Your task to perform on an android device: toggle javascript in the chrome app Image 0: 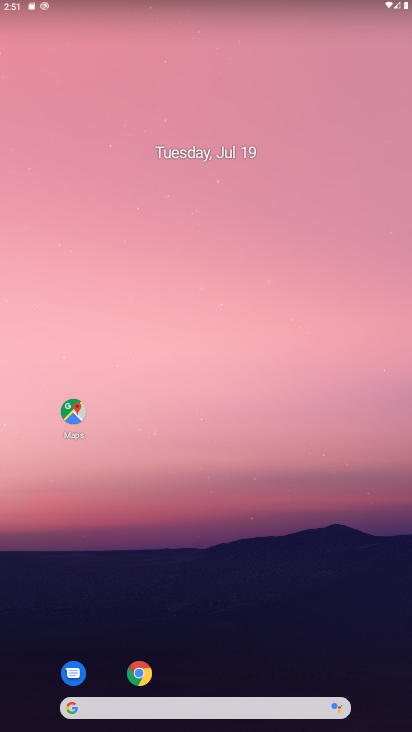
Step 0: click (143, 675)
Your task to perform on an android device: toggle javascript in the chrome app Image 1: 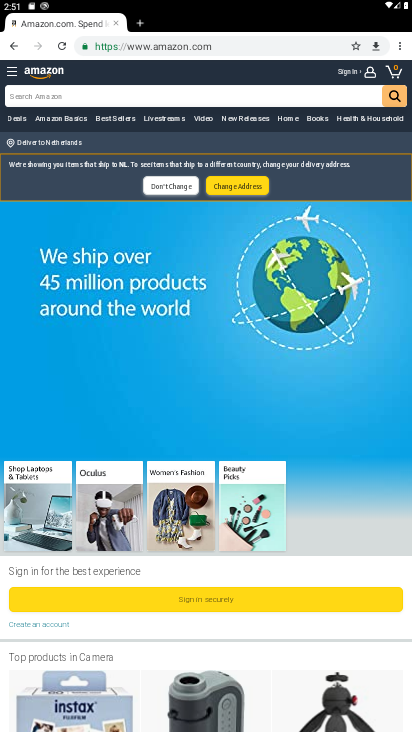
Step 1: click (397, 43)
Your task to perform on an android device: toggle javascript in the chrome app Image 2: 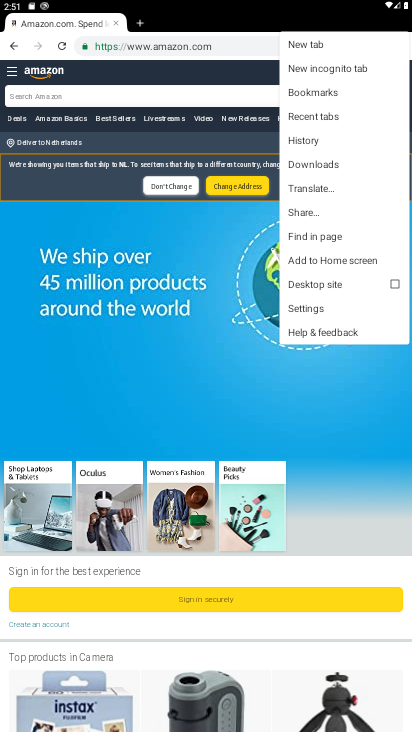
Step 2: click (297, 309)
Your task to perform on an android device: toggle javascript in the chrome app Image 3: 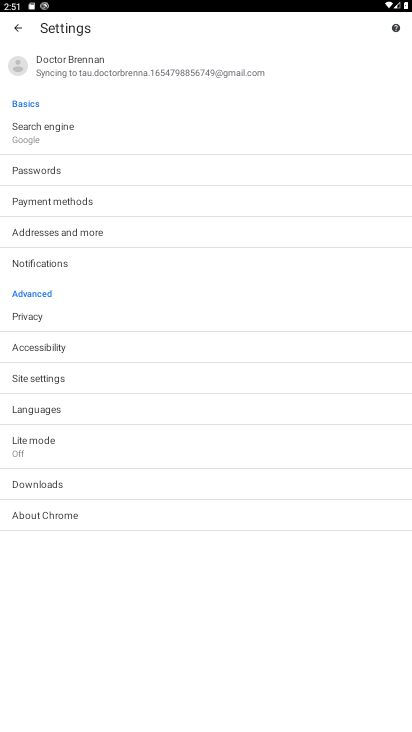
Step 3: click (43, 381)
Your task to perform on an android device: toggle javascript in the chrome app Image 4: 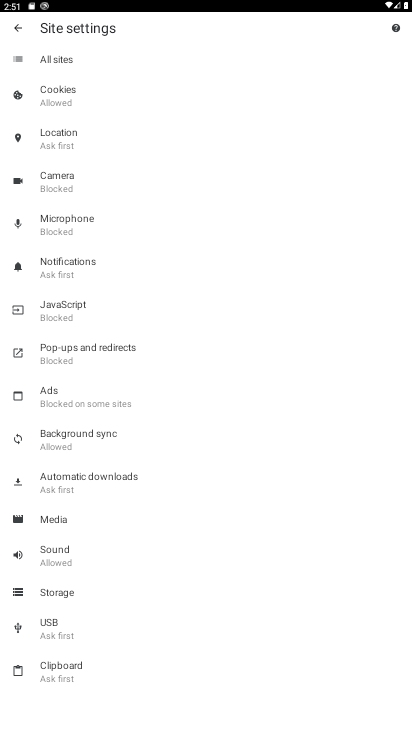
Step 4: click (82, 319)
Your task to perform on an android device: toggle javascript in the chrome app Image 5: 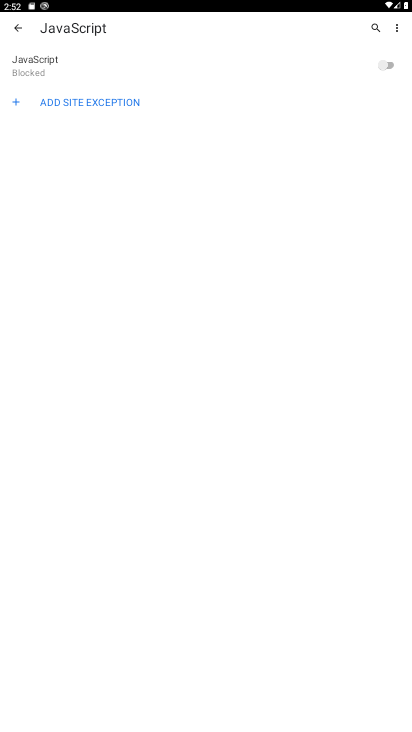
Step 5: click (374, 66)
Your task to perform on an android device: toggle javascript in the chrome app Image 6: 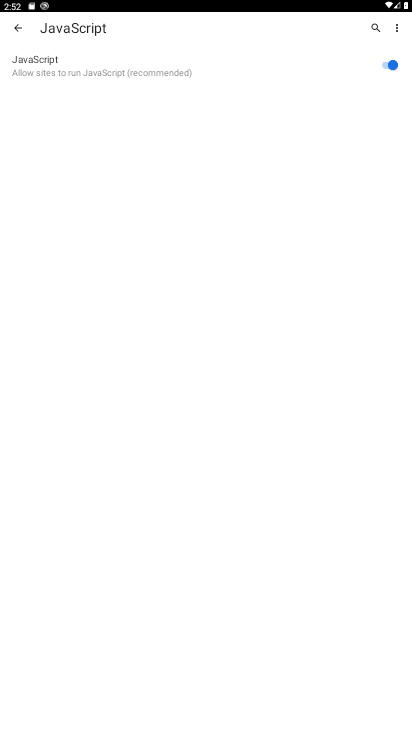
Step 6: task complete